Your task to perform on an android device: Open settings Image 0: 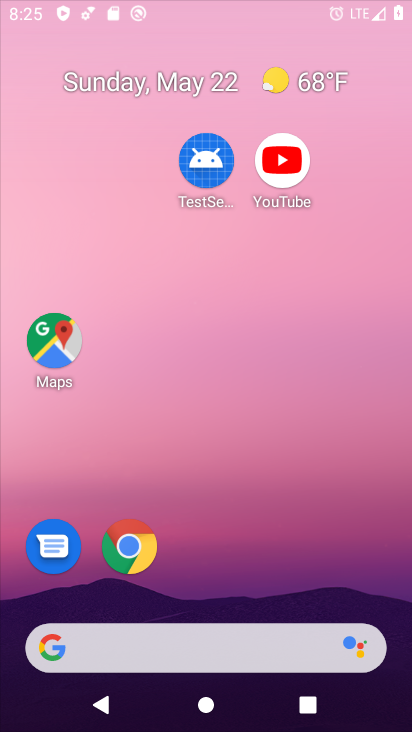
Step 0: click (152, 276)
Your task to perform on an android device: Open settings Image 1: 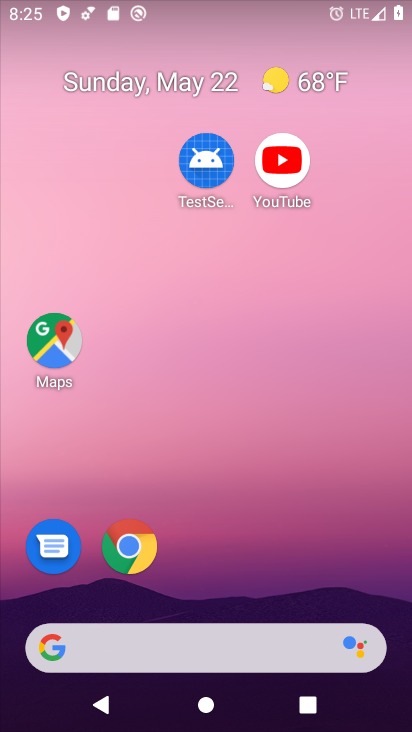
Step 1: drag from (244, 695) to (285, 313)
Your task to perform on an android device: Open settings Image 2: 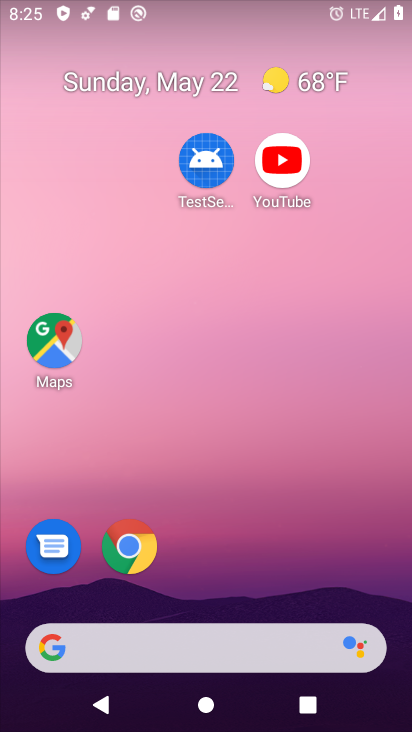
Step 2: drag from (231, 662) to (242, 397)
Your task to perform on an android device: Open settings Image 3: 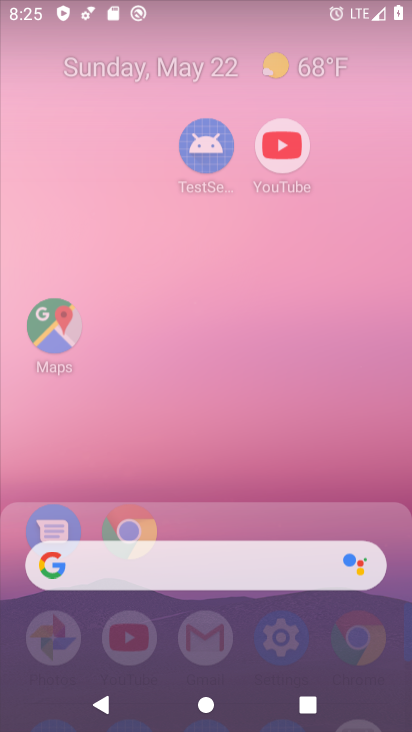
Step 3: drag from (265, 549) to (265, 298)
Your task to perform on an android device: Open settings Image 4: 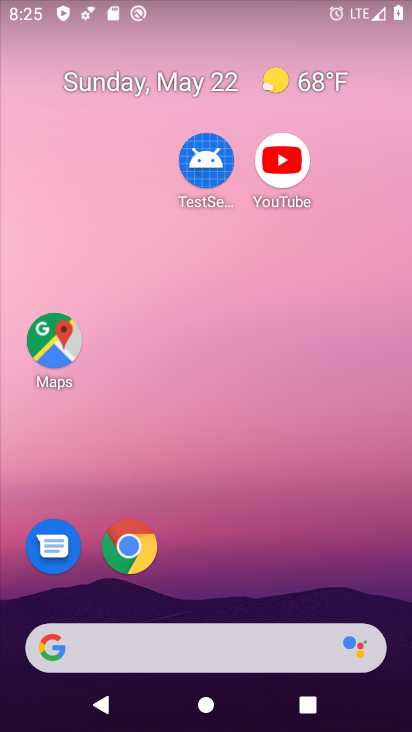
Step 4: drag from (237, 577) to (175, 245)
Your task to perform on an android device: Open settings Image 5: 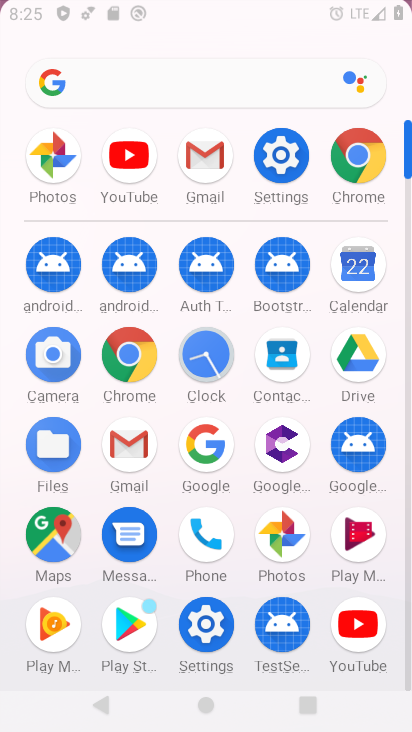
Step 5: drag from (241, 503) to (241, 296)
Your task to perform on an android device: Open settings Image 6: 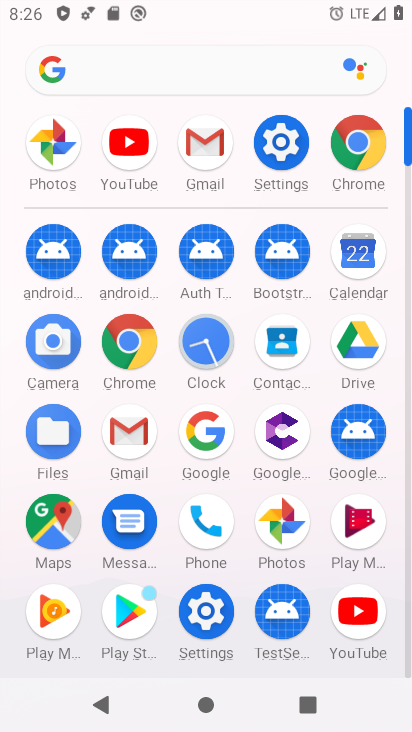
Step 6: click (285, 149)
Your task to perform on an android device: Open settings Image 7: 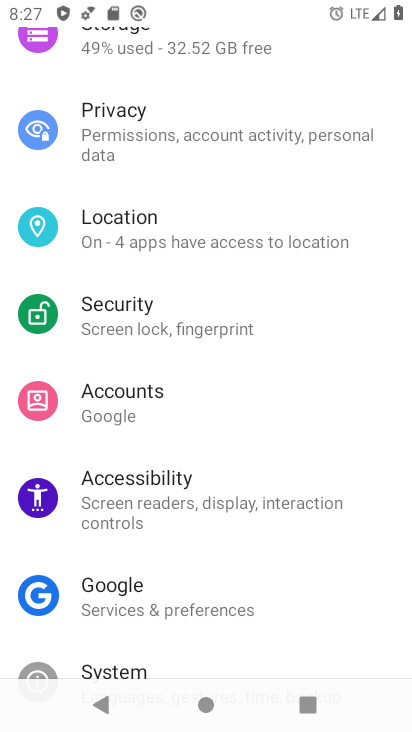
Step 7: task complete